Your task to perform on an android device: change the clock display to analog Image 0: 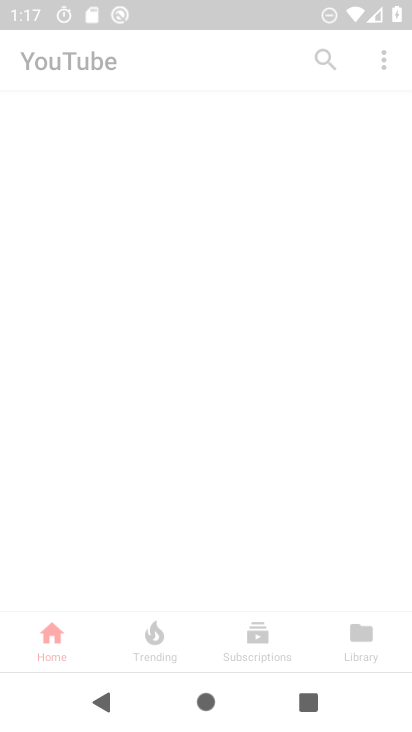
Step 0: drag from (166, 10) to (156, 632)
Your task to perform on an android device: change the clock display to analog Image 1: 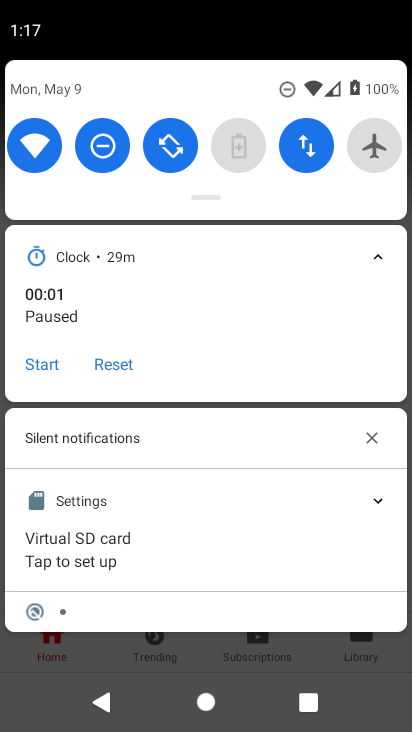
Step 1: drag from (236, 650) to (306, 12)
Your task to perform on an android device: change the clock display to analog Image 2: 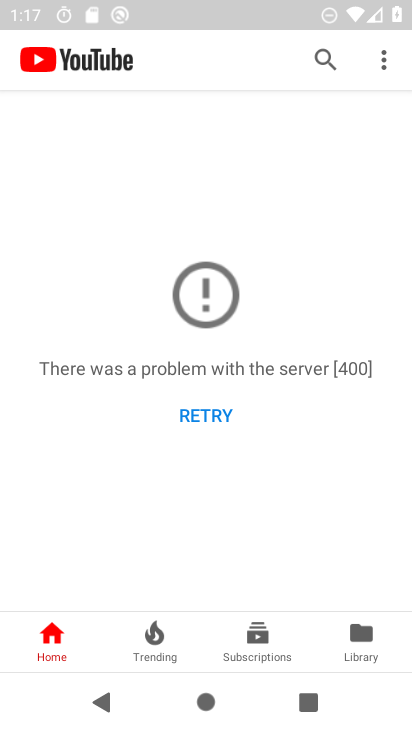
Step 2: press home button
Your task to perform on an android device: change the clock display to analog Image 3: 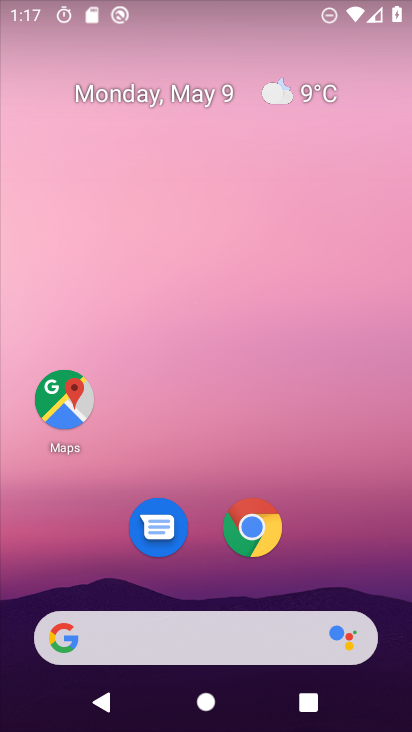
Step 3: drag from (221, 590) to (322, 4)
Your task to perform on an android device: change the clock display to analog Image 4: 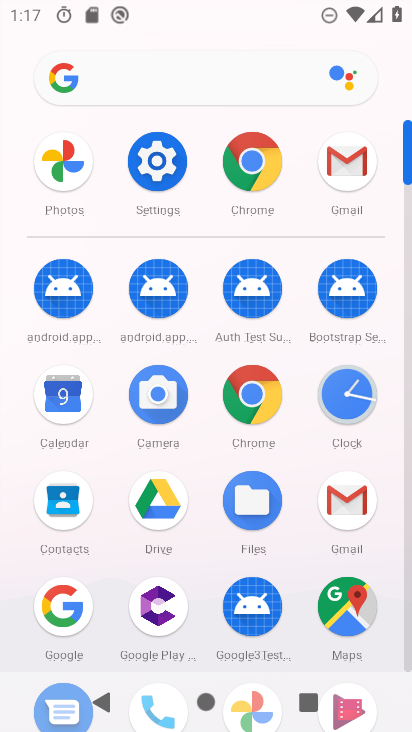
Step 4: click (344, 383)
Your task to perform on an android device: change the clock display to analog Image 5: 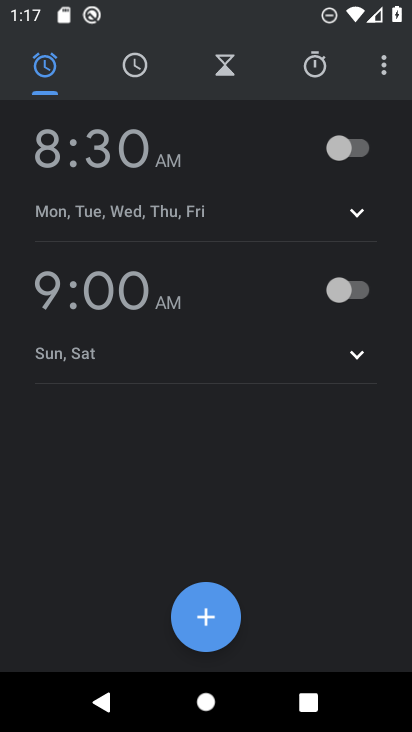
Step 5: drag from (386, 61) to (273, 129)
Your task to perform on an android device: change the clock display to analog Image 6: 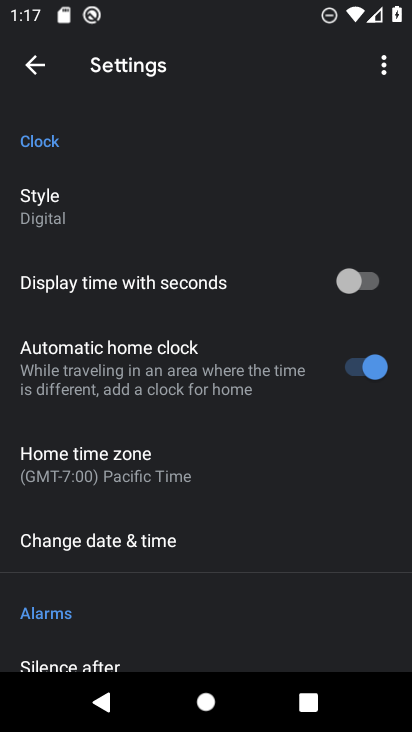
Step 6: click (113, 212)
Your task to perform on an android device: change the clock display to analog Image 7: 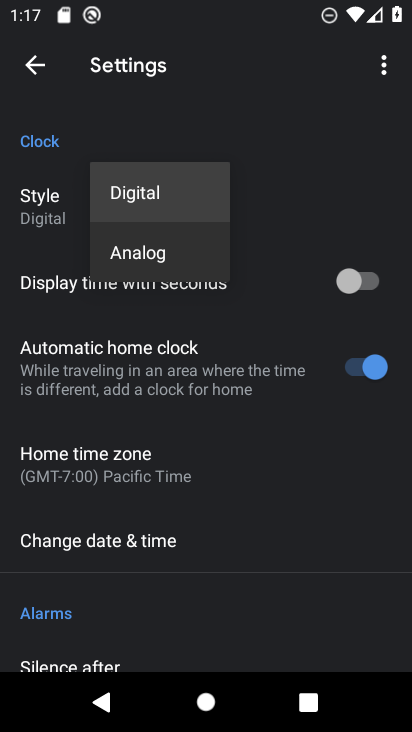
Step 7: click (166, 256)
Your task to perform on an android device: change the clock display to analog Image 8: 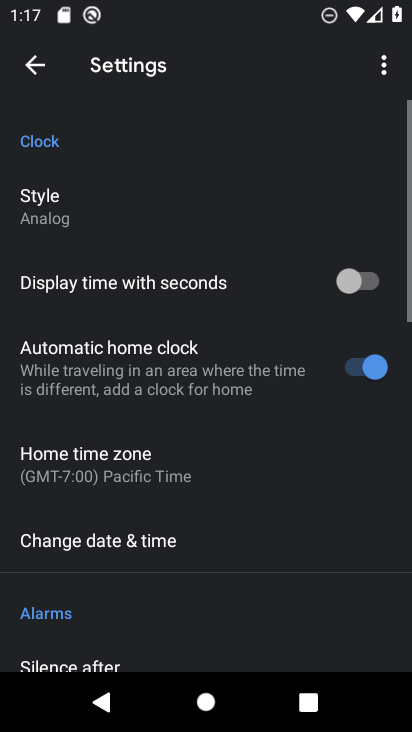
Step 8: task complete